Your task to perform on an android device: stop showing notifications on the lock screen Image 0: 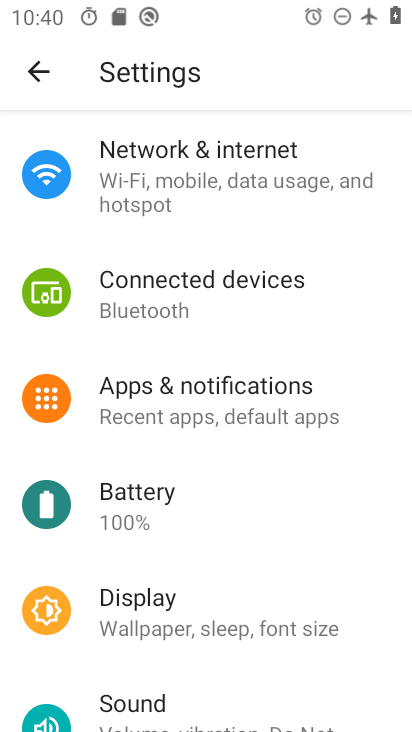
Step 0: drag from (220, 576) to (320, 224)
Your task to perform on an android device: stop showing notifications on the lock screen Image 1: 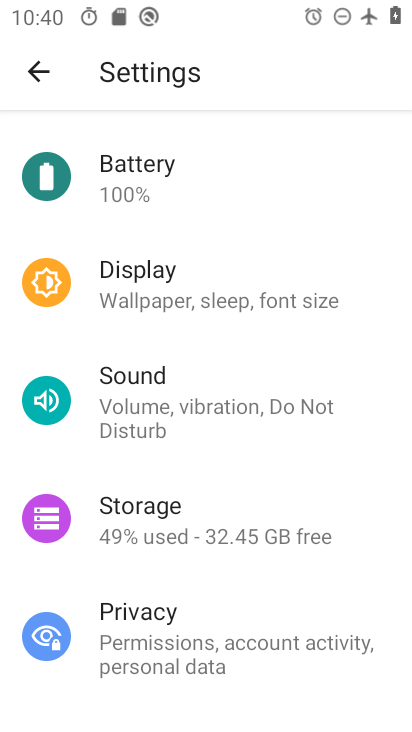
Step 1: drag from (202, 328) to (202, 591)
Your task to perform on an android device: stop showing notifications on the lock screen Image 2: 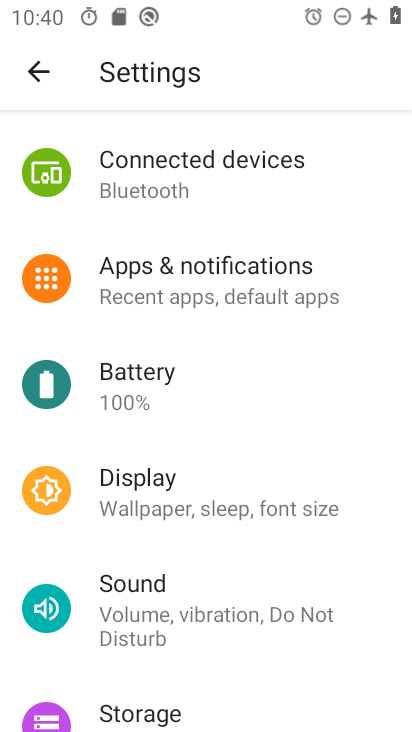
Step 2: click (221, 281)
Your task to perform on an android device: stop showing notifications on the lock screen Image 3: 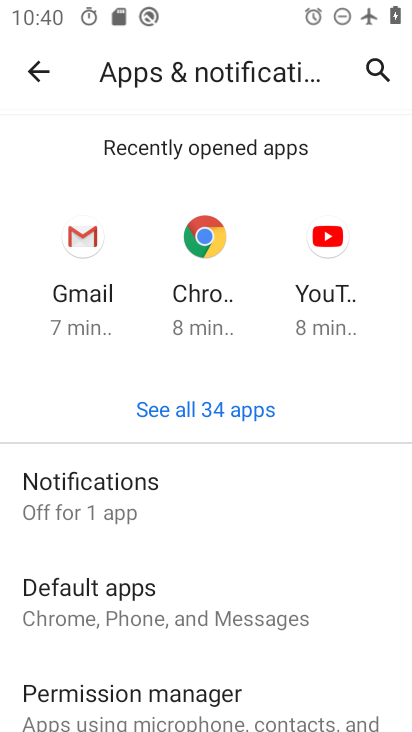
Step 3: click (202, 486)
Your task to perform on an android device: stop showing notifications on the lock screen Image 4: 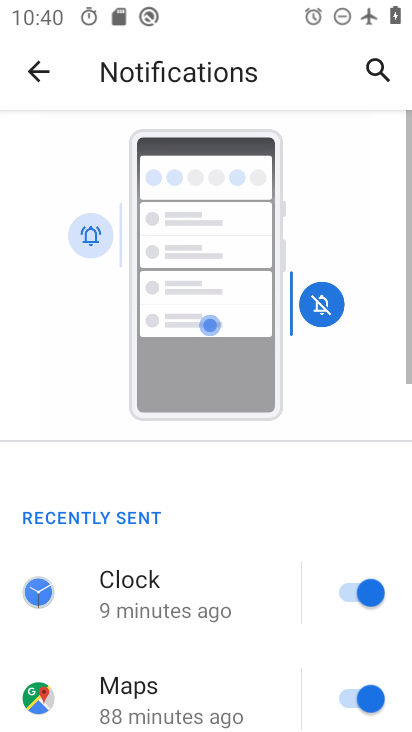
Step 4: drag from (210, 671) to (323, 163)
Your task to perform on an android device: stop showing notifications on the lock screen Image 5: 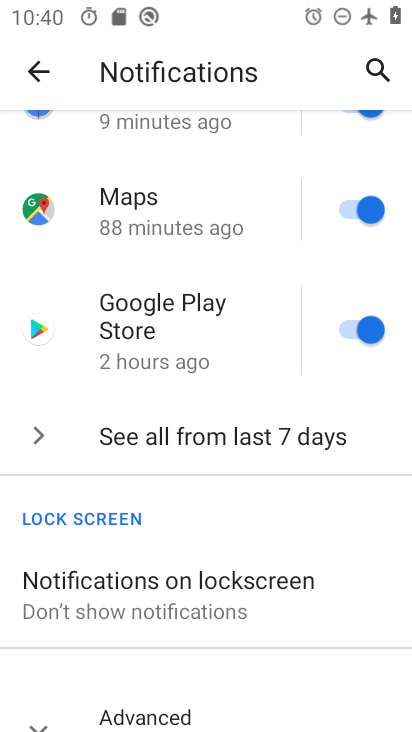
Step 5: click (238, 592)
Your task to perform on an android device: stop showing notifications on the lock screen Image 6: 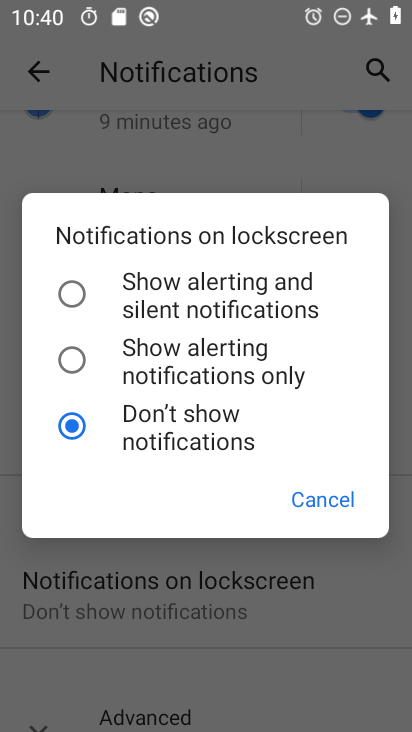
Step 6: task complete